Your task to perform on an android device: Open the calendar app, open the side menu, and click the "Day" option Image 0: 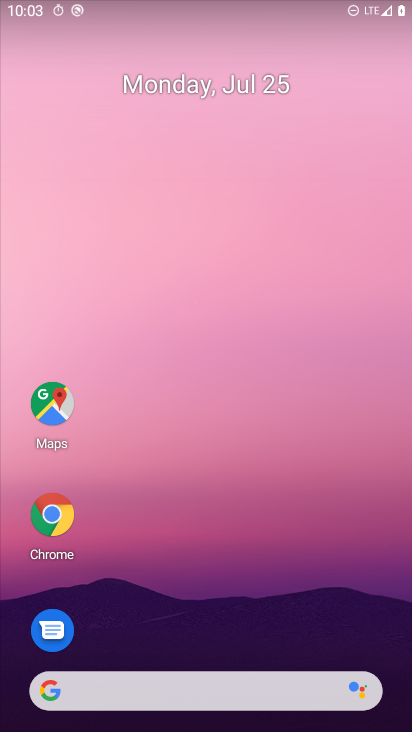
Step 0: drag from (158, 351) to (343, 35)
Your task to perform on an android device: Open the calendar app, open the side menu, and click the "Day" option Image 1: 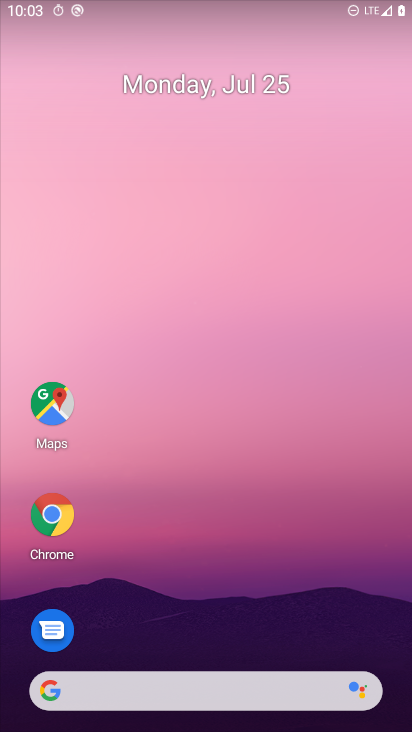
Step 1: drag from (47, 656) to (196, 315)
Your task to perform on an android device: Open the calendar app, open the side menu, and click the "Day" option Image 2: 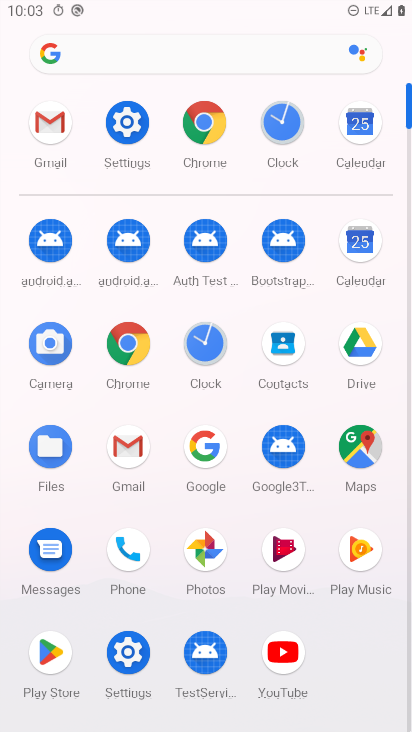
Step 2: click (339, 253)
Your task to perform on an android device: Open the calendar app, open the side menu, and click the "Day" option Image 3: 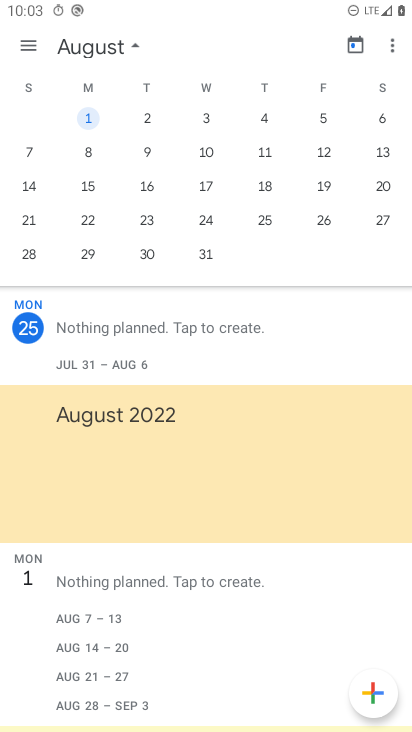
Step 3: click (27, 31)
Your task to perform on an android device: Open the calendar app, open the side menu, and click the "Day" option Image 4: 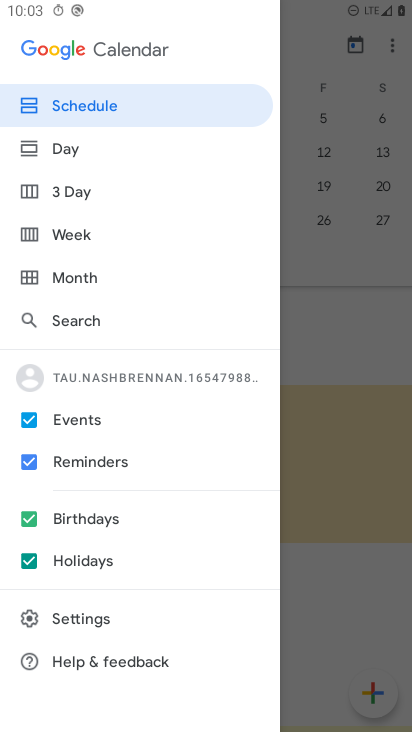
Step 4: click (53, 146)
Your task to perform on an android device: Open the calendar app, open the side menu, and click the "Day" option Image 5: 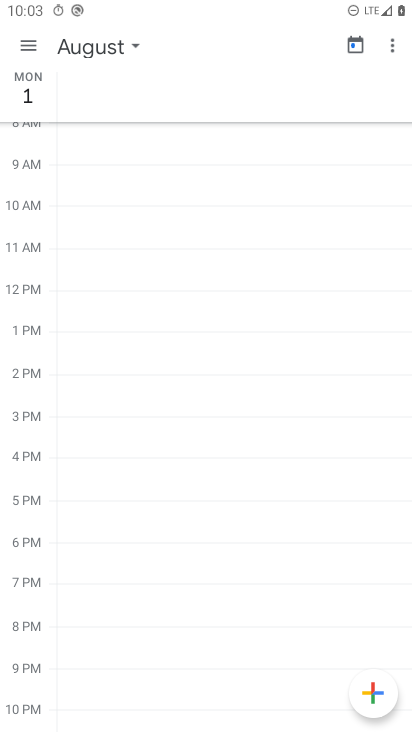
Step 5: task complete